Your task to perform on an android device: open the mobile data screen to see how much data has been used Image 0: 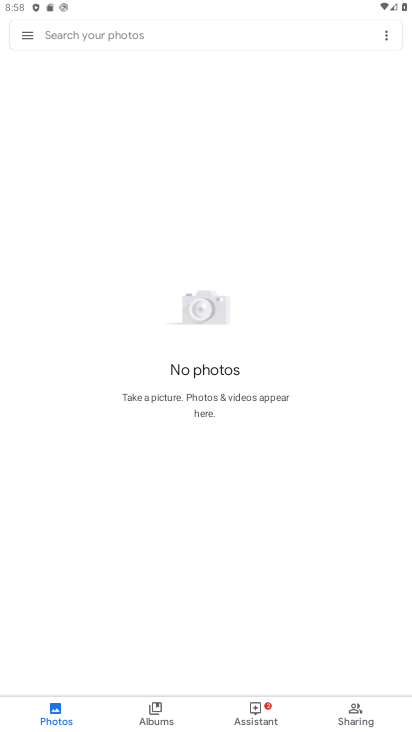
Step 0: press home button
Your task to perform on an android device: open the mobile data screen to see how much data has been used Image 1: 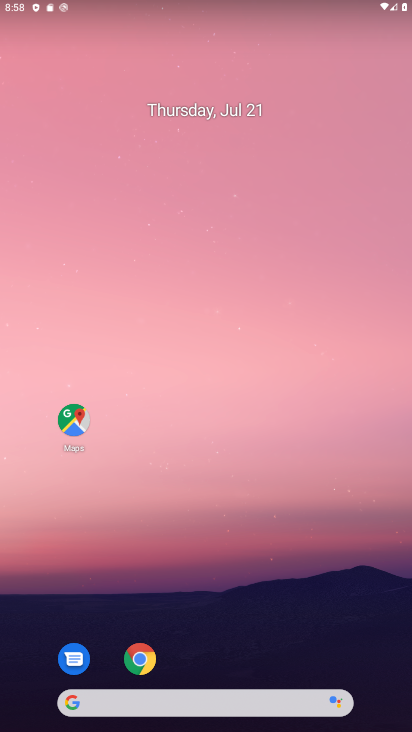
Step 1: drag from (207, 663) to (136, 11)
Your task to perform on an android device: open the mobile data screen to see how much data has been used Image 2: 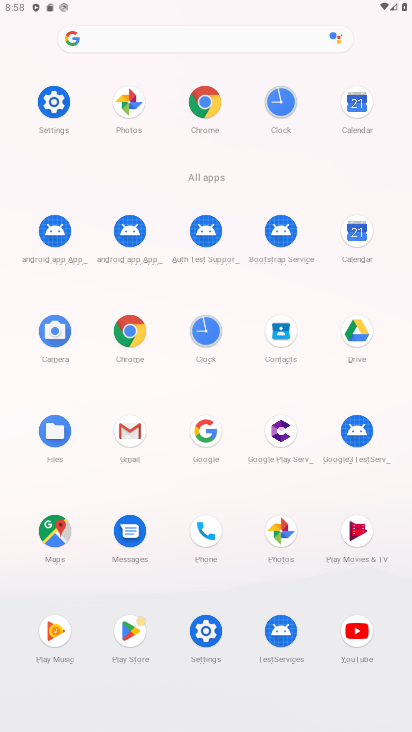
Step 2: click (63, 104)
Your task to perform on an android device: open the mobile data screen to see how much data has been used Image 3: 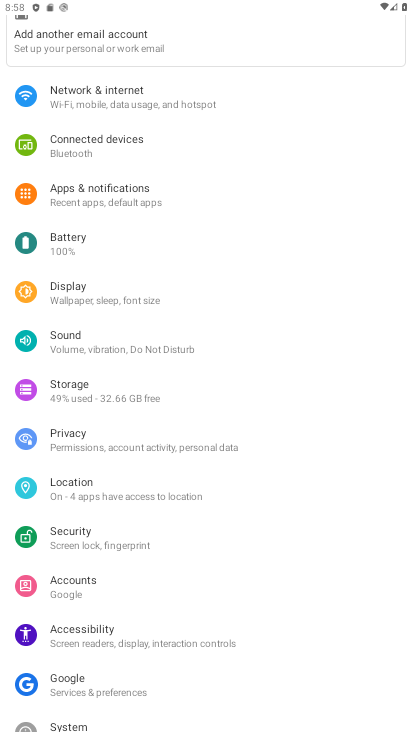
Step 3: click (65, 104)
Your task to perform on an android device: open the mobile data screen to see how much data has been used Image 4: 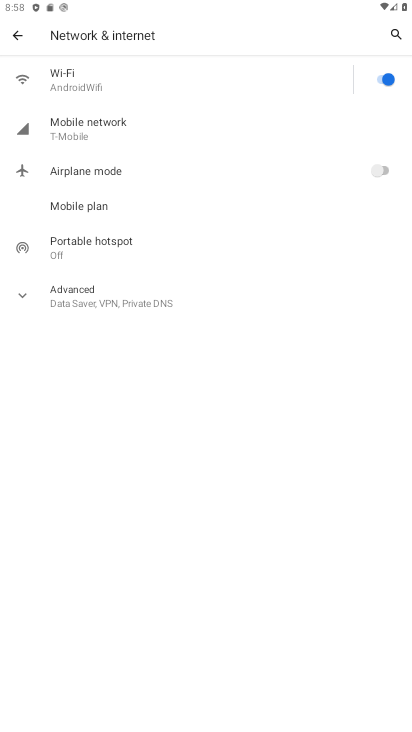
Step 4: click (137, 124)
Your task to perform on an android device: open the mobile data screen to see how much data has been used Image 5: 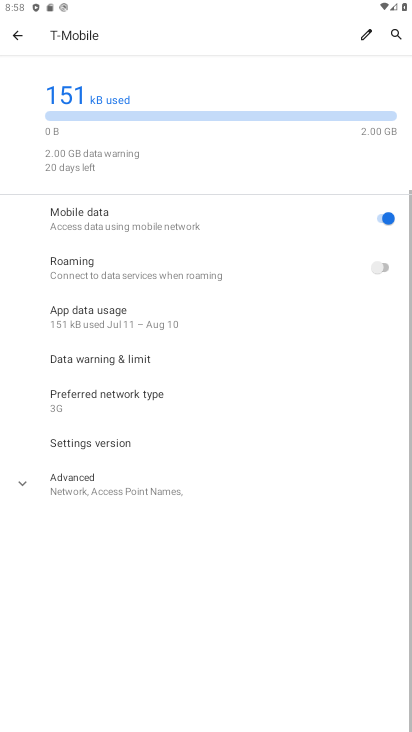
Step 5: task complete